Your task to perform on an android device: all mails in gmail Image 0: 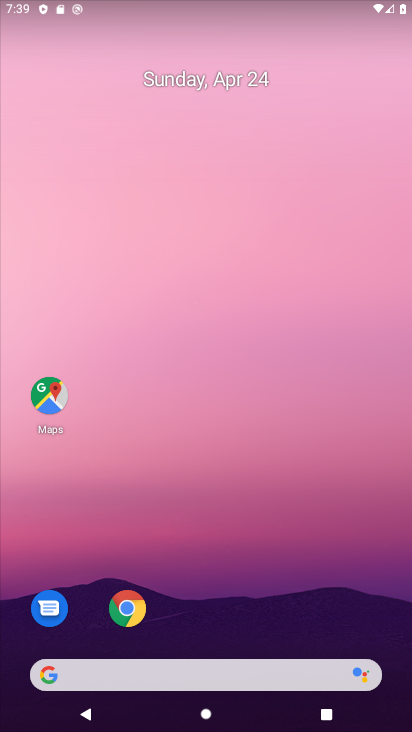
Step 0: drag from (267, 578) to (278, 90)
Your task to perform on an android device: all mails in gmail Image 1: 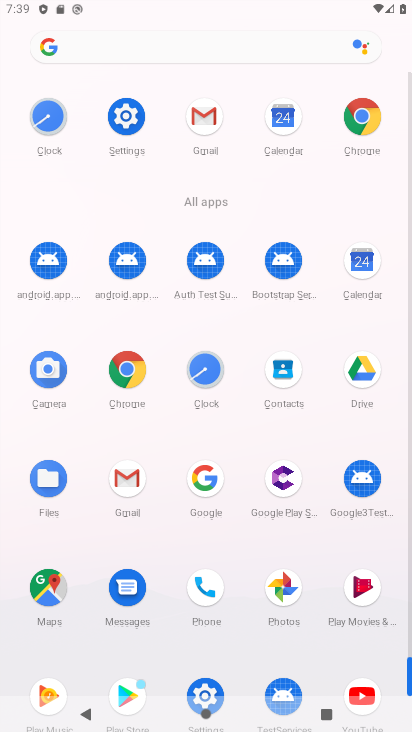
Step 1: click (206, 117)
Your task to perform on an android device: all mails in gmail Image 2: 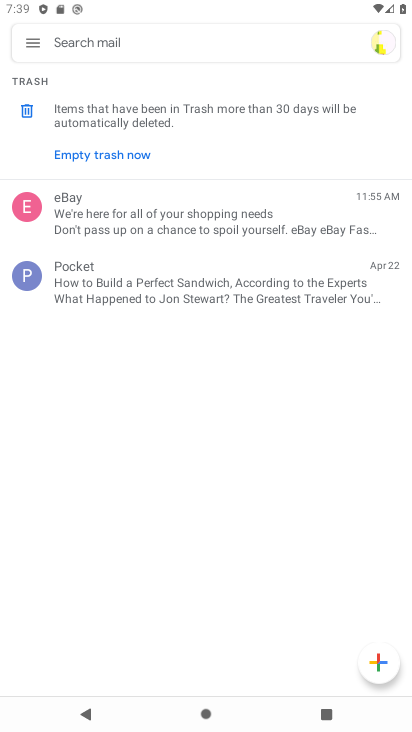
Step 2: click (30, 42)
Your task to perform on an android device: all mails in gmail Image 3: 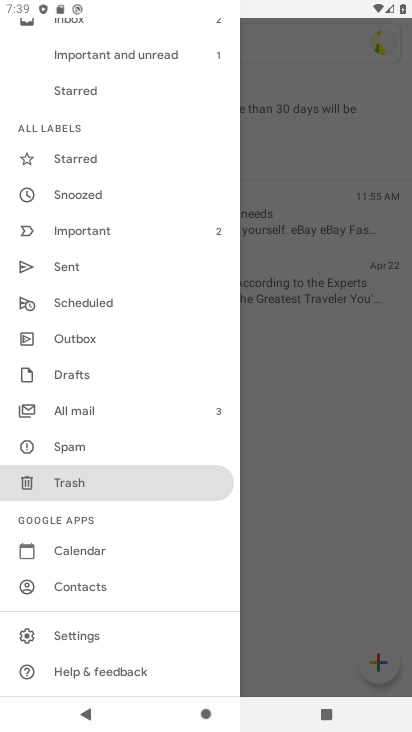
Step 3: click (116, 410)
Your task to perform on an android device: all mails in gmail Image 4: 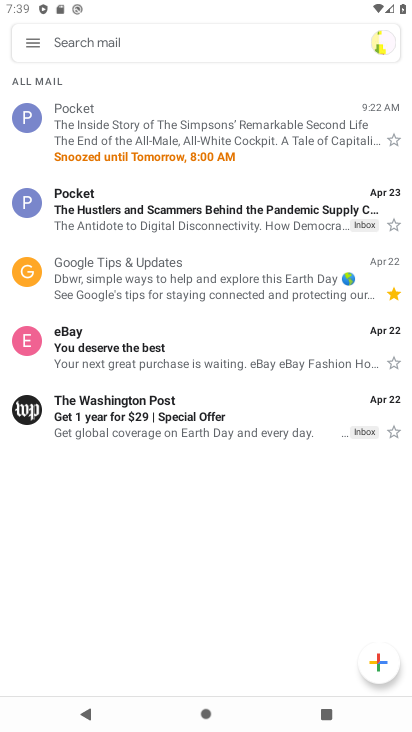
Step 4: task complete